Your task to perform on an android device: Go to accessibility settings Image 0: 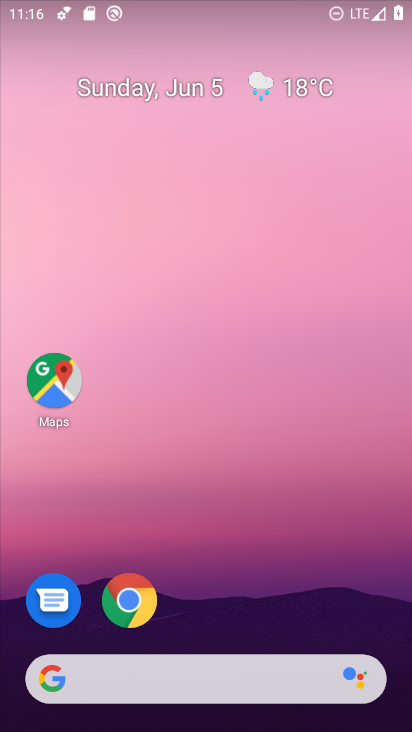
Step 0: drag from (211, 609) to (267, 171)
Your task to perform on an android device: Go to accessibility settings Image 1: 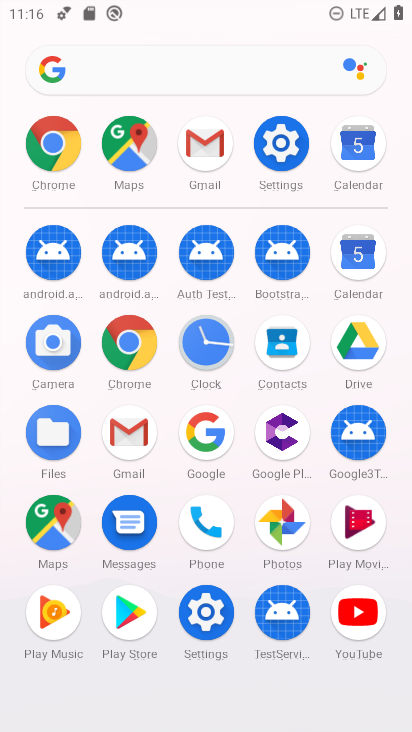
Step 1: click (278, 158)
Your task to perform on an android device: Go to accessibility settings Image 2: 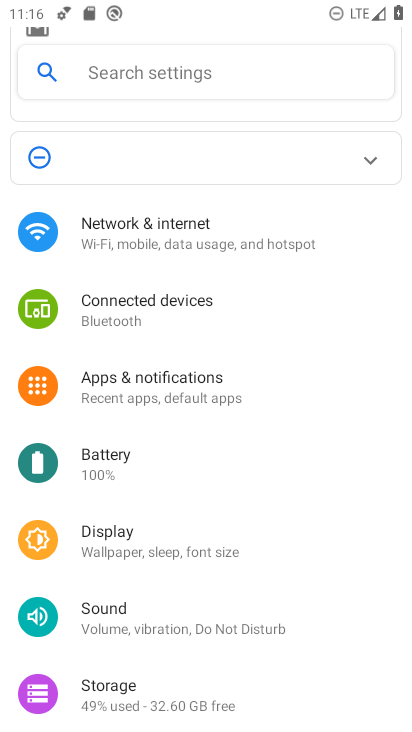
Step 2: drag from (161, 655) to (163, 397)
Your task to perform on an android device: Go to accessibility settings Image 3: 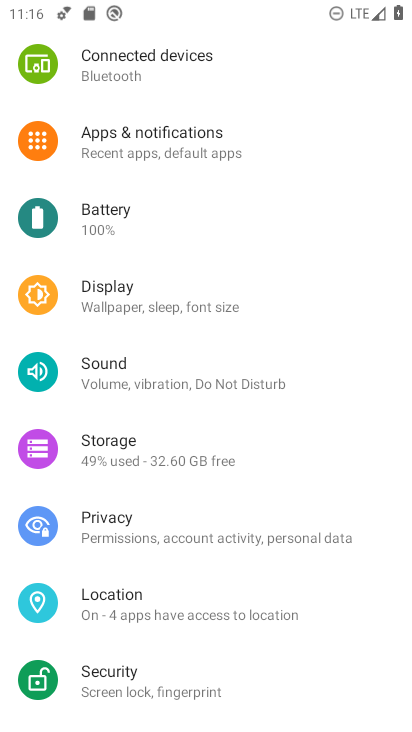
Step 3: drag from (178, 638) to (185, 297)
Your task to perform on an android device: Go to accessibility settings Image 4: 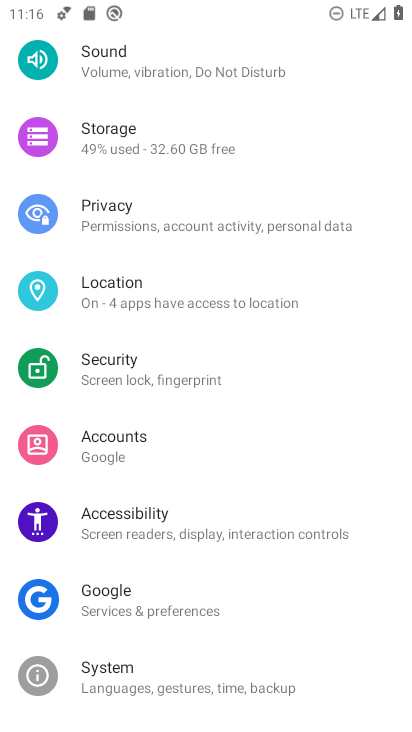
Step 4: click (170, 538)
Your task to perform on an android device: Go to accessibility settings Image 5: 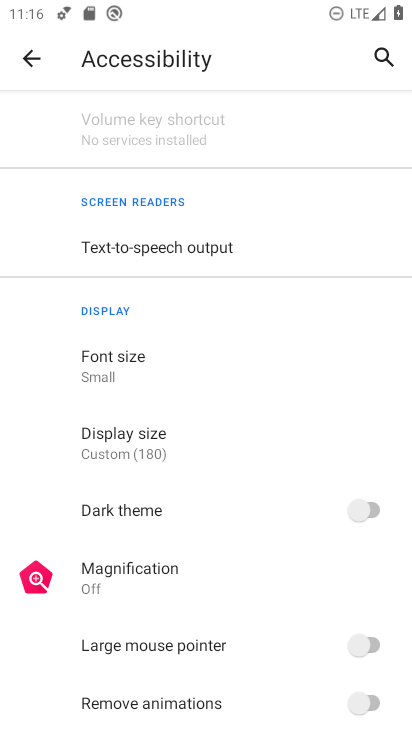
Step 5: task complete